Your task to perform on an android device: Open ESPN.com Image 0: 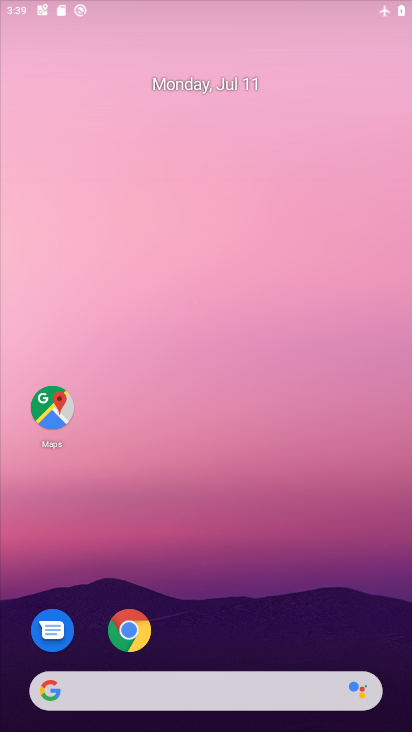
Step 0: press home button
Your task to perform on an android device: Open ESPN.com Image 1: 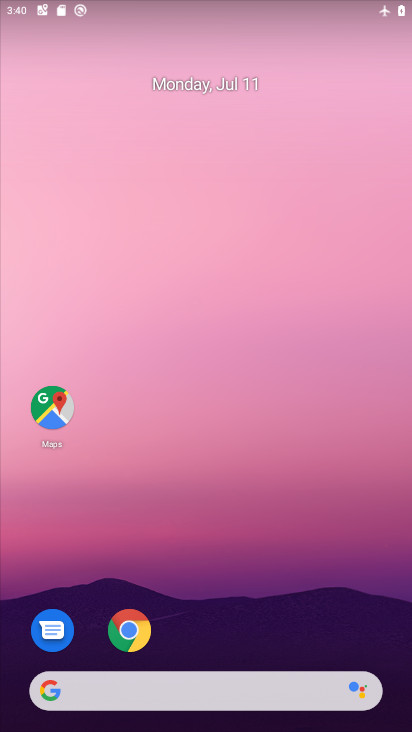
Step 1: click (28, 401)
Your task to perform on an android device: Open ESPN.com Image 2: 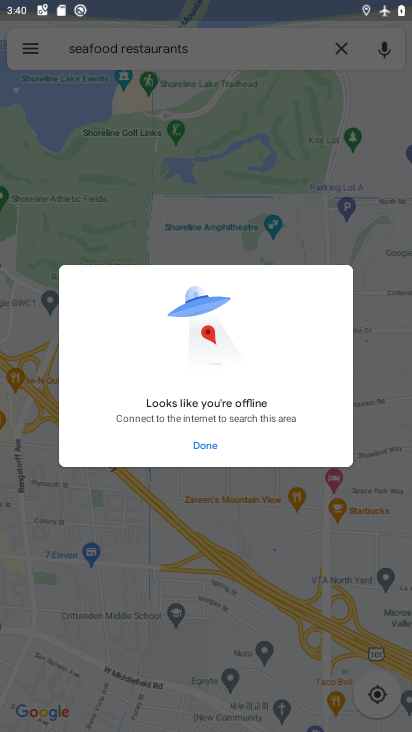
Step 2: press home button
Your task to perform on an android device: Open ESPN.com Image 3: 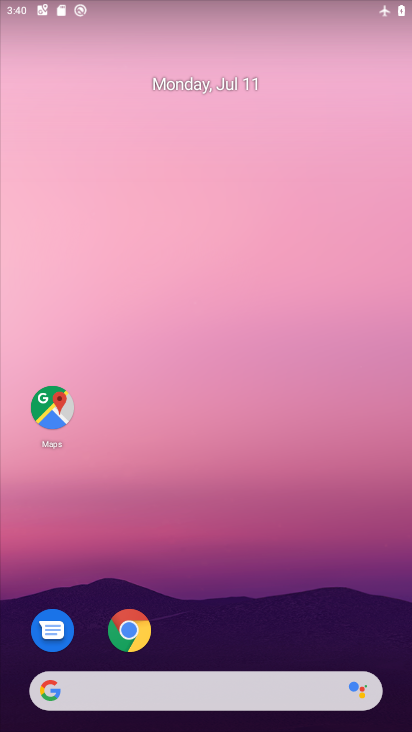
Step 3: drag from (249, 597) to (235, 79)
Your task to perform on an android device: Open ESPN.com Image 4: 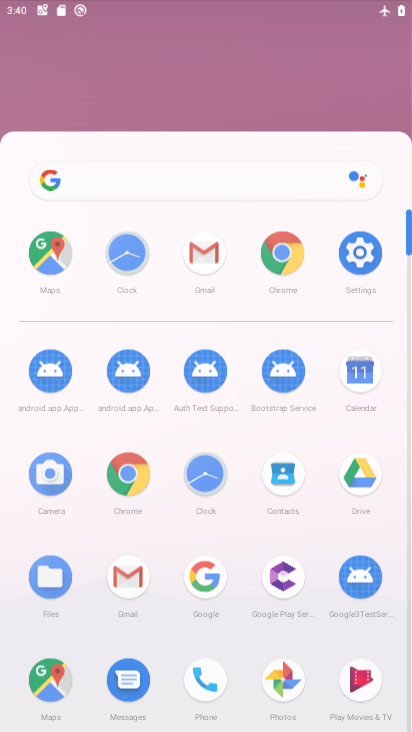
Step 4: click (235, 79)
Your task to perform on an android device: Open ESPN.com Image 5: 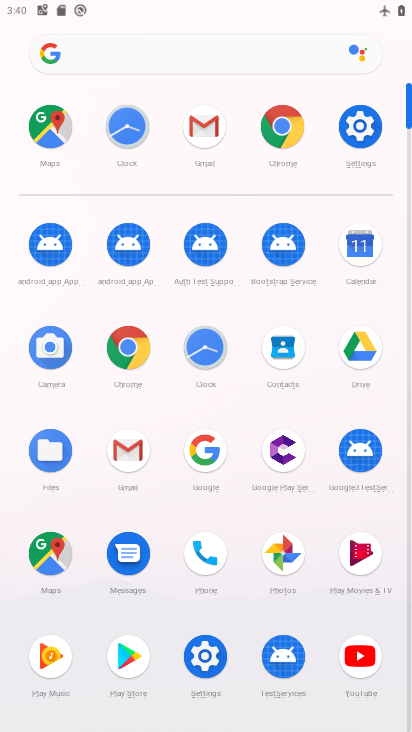
Step 5: click (364, 118)
Your task to perform on an android device: Open ESPN.com Image 6: 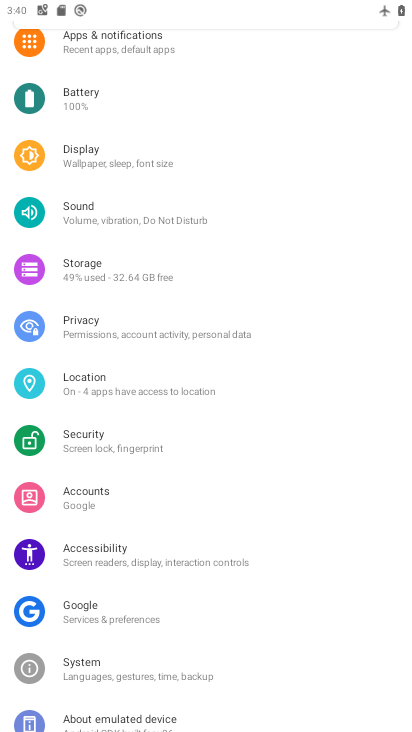
Step 6: drag from (194, 232) to (171, 532)
Your task to perform on an android device: Open ESPN.com Image 7: 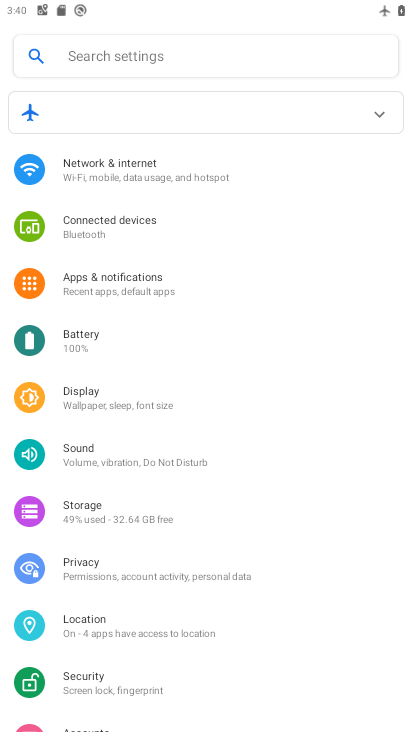
Step 7: click (212, 191)
Your task to perform on an android device: Open ESPN.com Image 8: 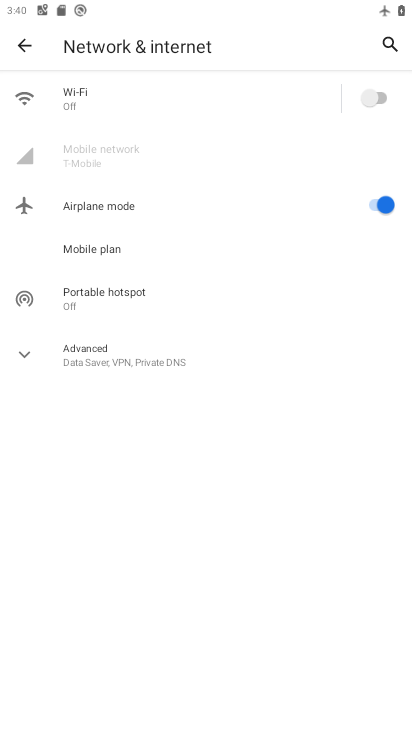
Step 8: click (363, 93)
Your task to perform on an android device: Open ESPN.com Image 9: 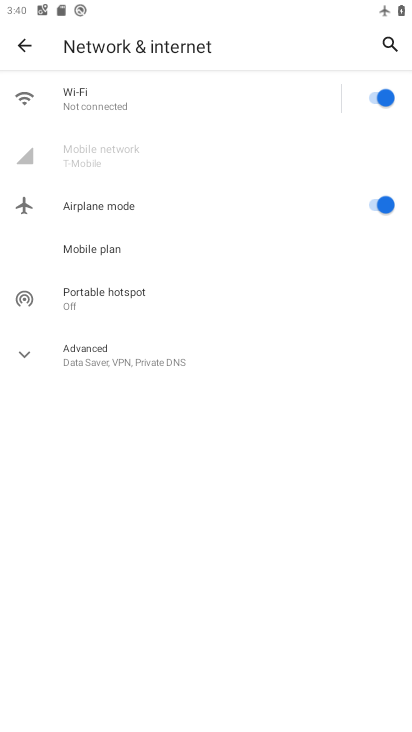
Step 9: press home button
Your task to perform on an android device: Open ESPN.com Image 10: 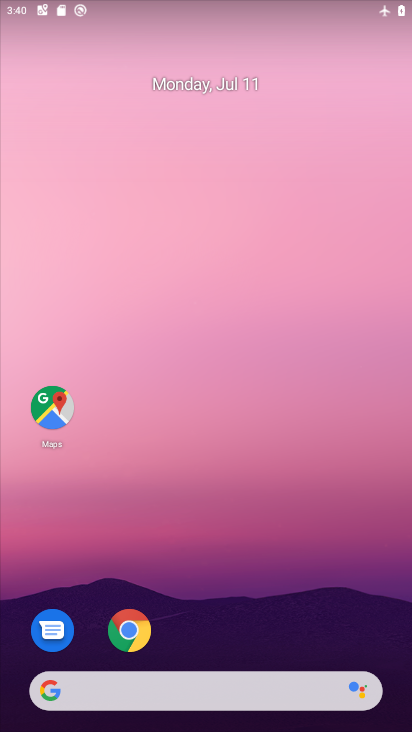
Step 10: click (118, 634)
Your task to perform on an android device: Open ESPN.com Image 11: 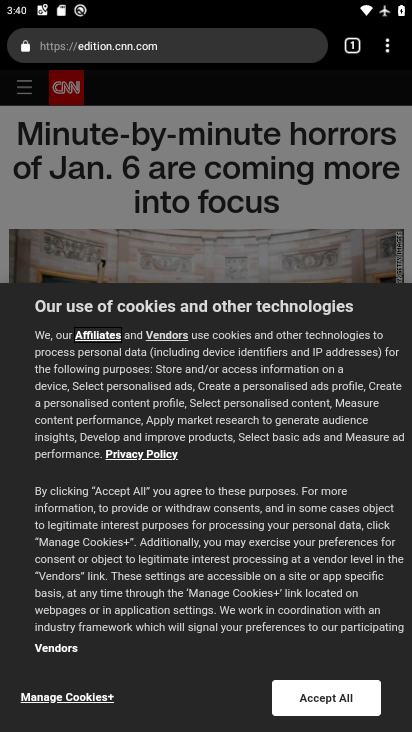
Step 11: task complete